Your task to perform on an android device: Search for amazon basics triple a on walmart, select the first entry, add it to the cart, then select checkout. Image 0: 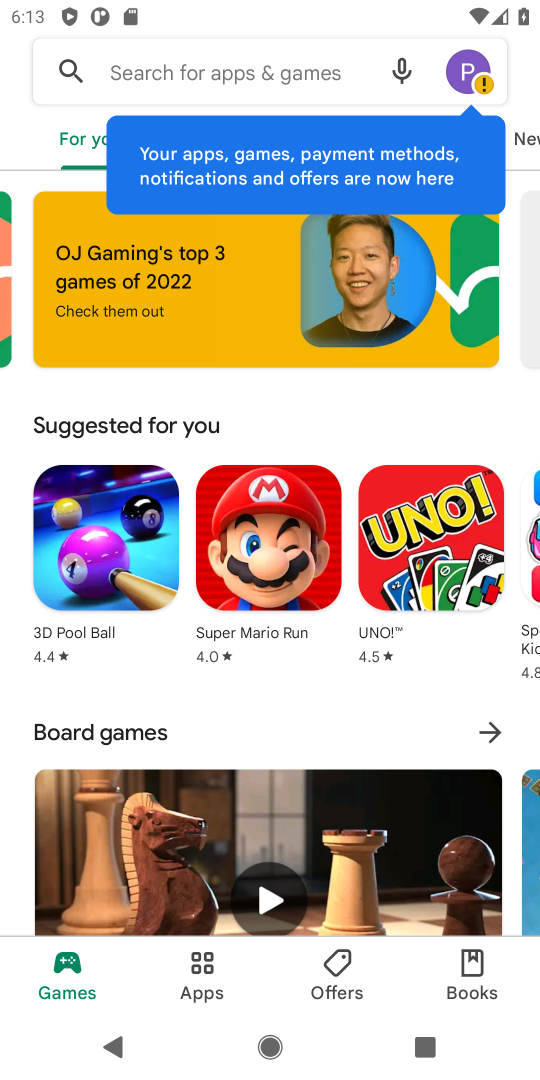
Step 0: press home button
Your task to perform on an android device: Search for amazon basics triple a on walmart, select the first entry, add it to the cart, then select checkout. Image 1: 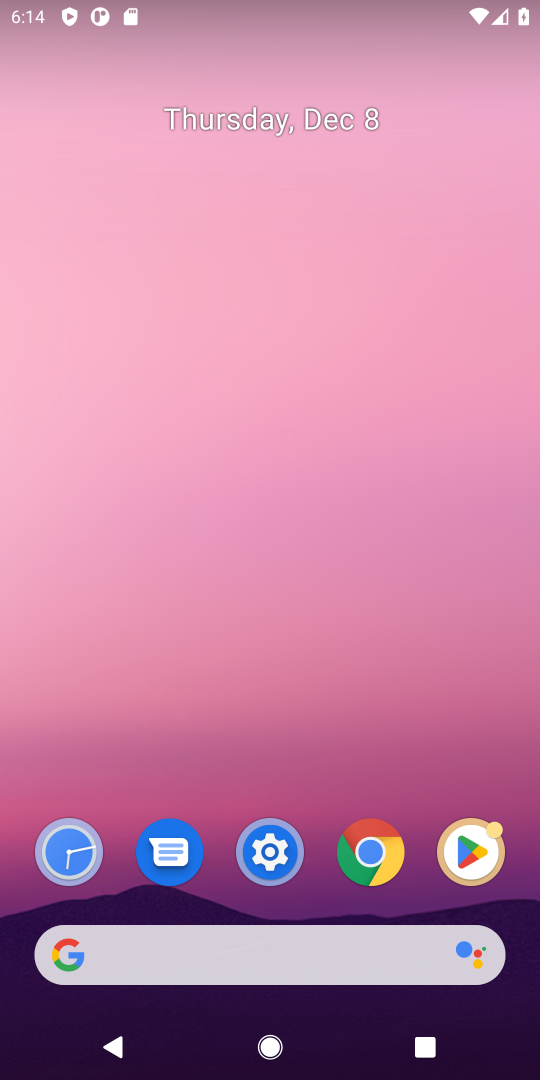
Step 1: click (236, 971)
Your task to perform on an android device: Search for amazon basics triple a on walmart, select the first entry, add it to the cart, then select checkout. Image 2: 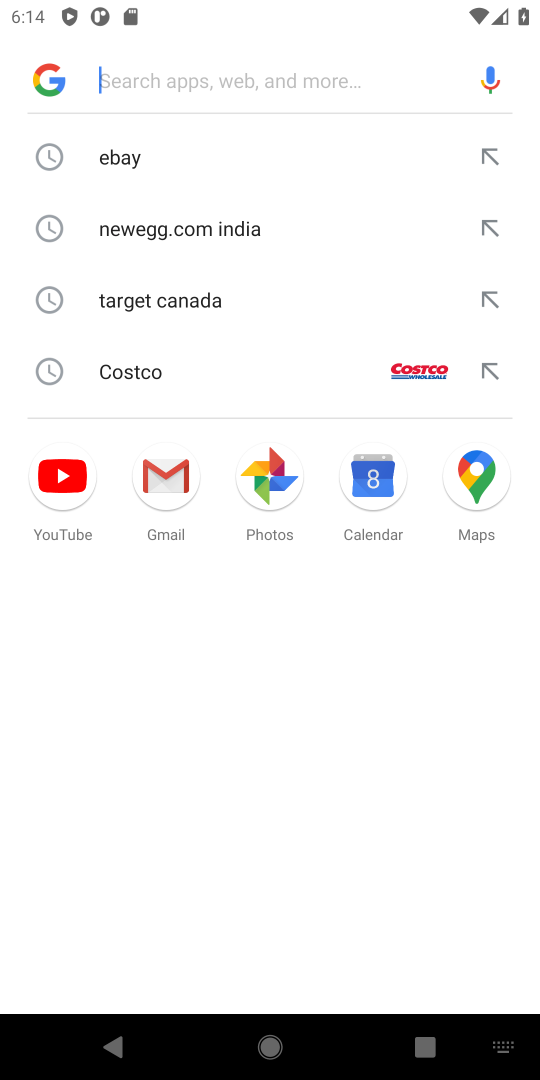
Step 2: type "walmart"
Your task to perform on an android device: Search for amazon basics triple a on walmart, select the first entry, add it to the cart, then select checkout. Image 3: 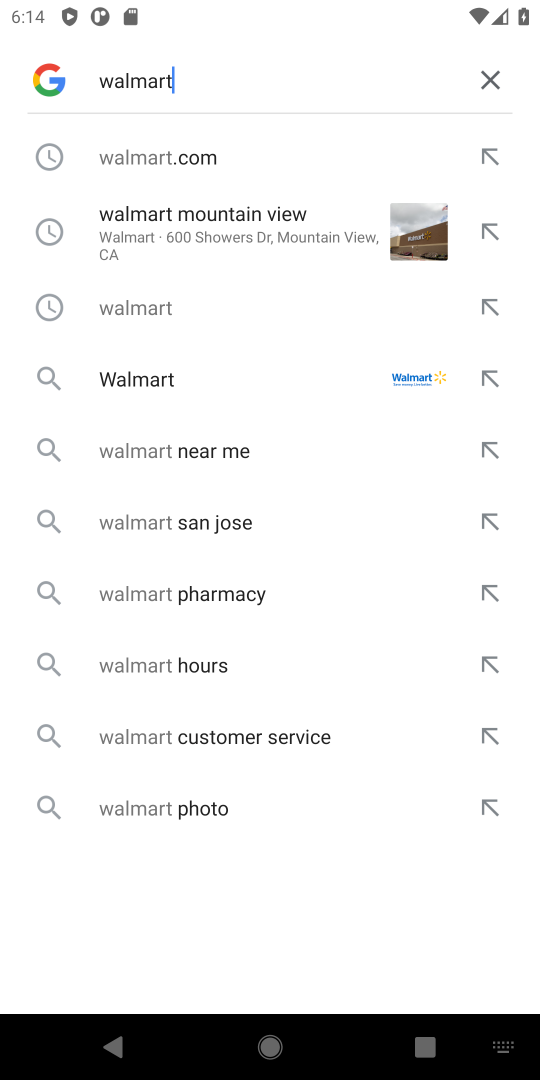
Step 3: click (207, 160)
Your task to perform on an android device: Search for amazon basics triple a on walmart, select the first entry, add it to the cart, then select checkout. Image 4: 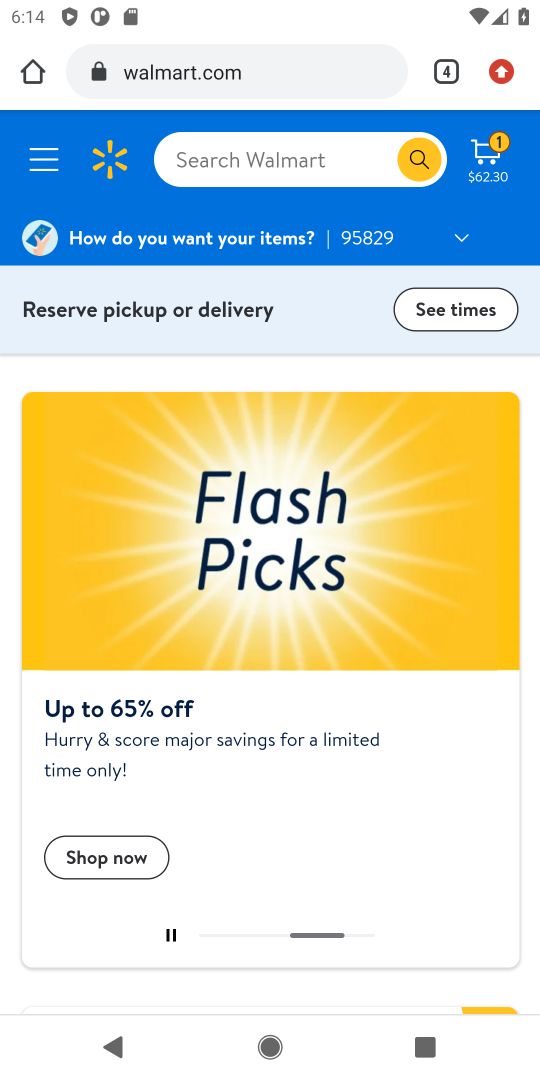
Step 4: click (214, 147)
Your task to perform on an android device: Search for amazon basics triple a on walmart, select the first entry, add it to the cart, then select checkout. Image 5: 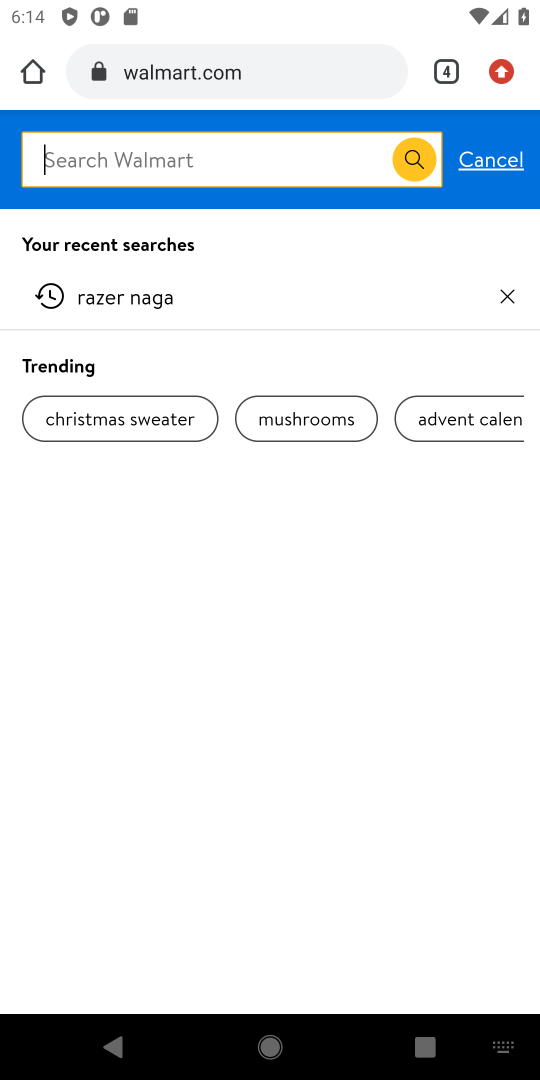
Step 5: type "amazon basic triple a"
Your task to perform on an android device: Search for amazon basics triple a on walmart, select the first entry, add it to the cart, then select checkout. Image 6: 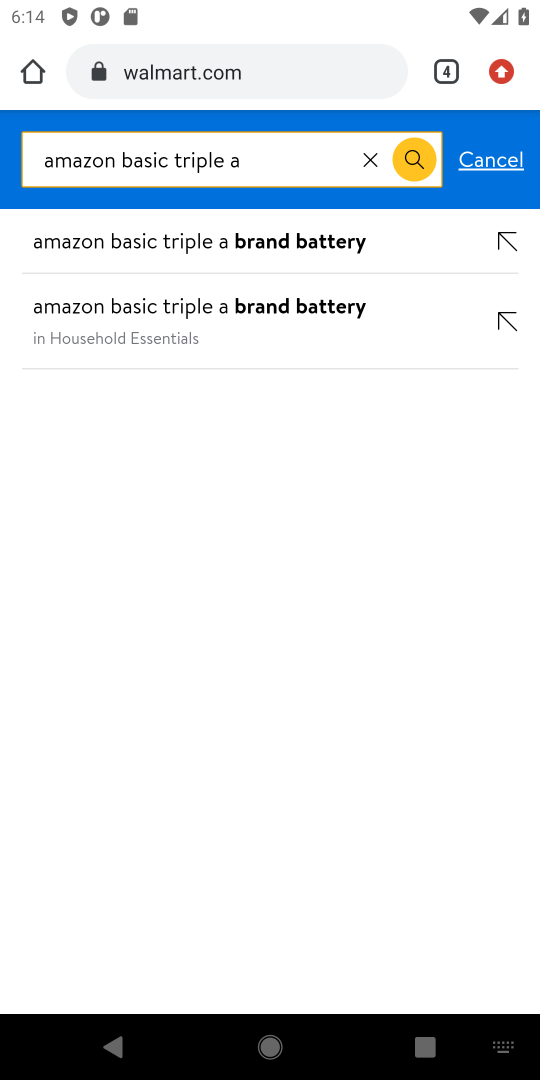
Step 6: click (297, 256)
Your task to perform on an android device: Search for amazon basics triple a on walmart, select the first entry, add it to the cart, then select checkout. Image 7: 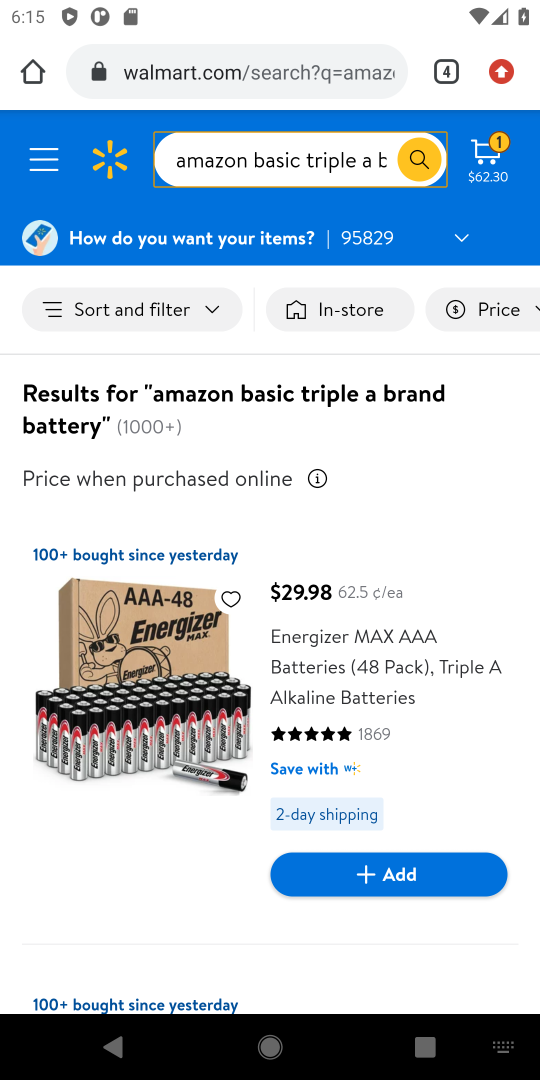
Step 7: click (323, 881)
Your task to perform on an android device: Search for amazon basics triple a on walmart, select the first entry, add it to the cart, then select checkout. Image 8: 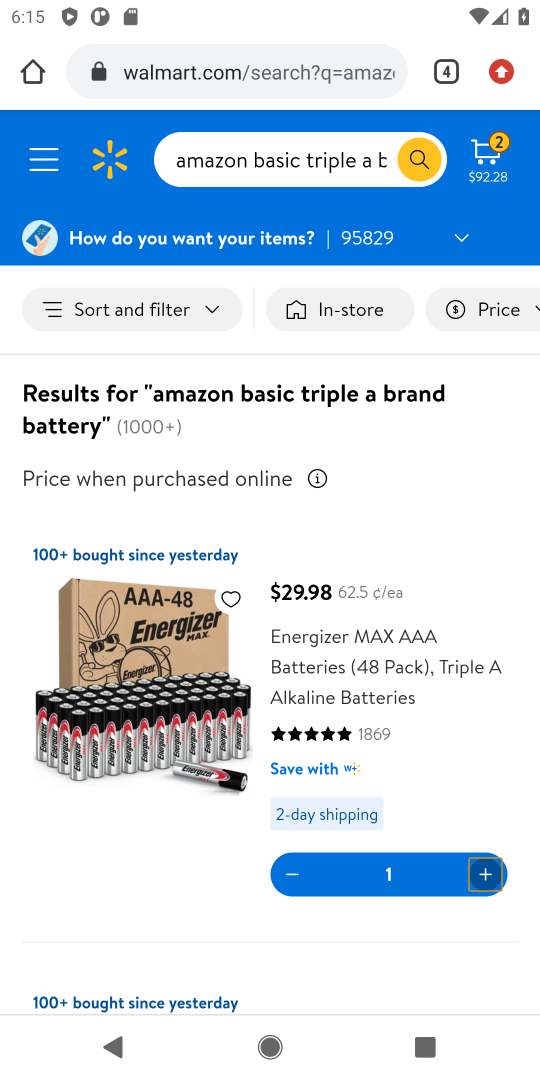
Step 8: task complete